Your task to perform on an android device: delete browsing data in the chrome app Image 0: 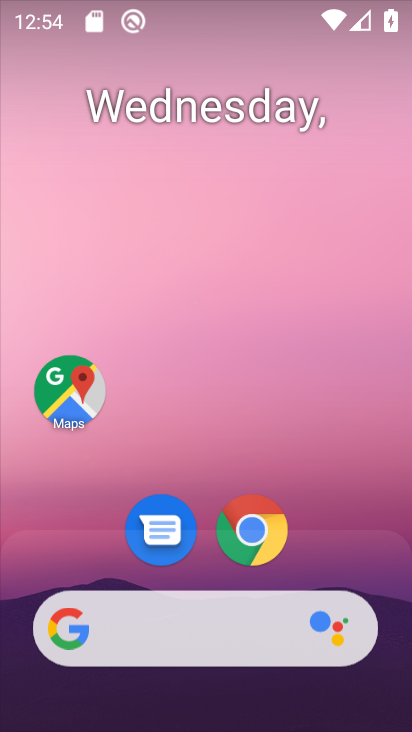
Step 0: click (254, 535)
Your task to perform on an android device: delete browsing data in the chrome app Image 1: 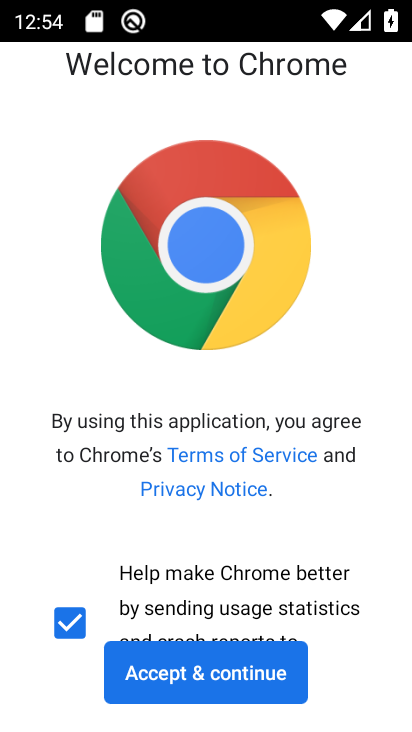
Step 1: click (213, 680)
Your task to perform on an android device: delete browsing data in the chrome app Image 2: 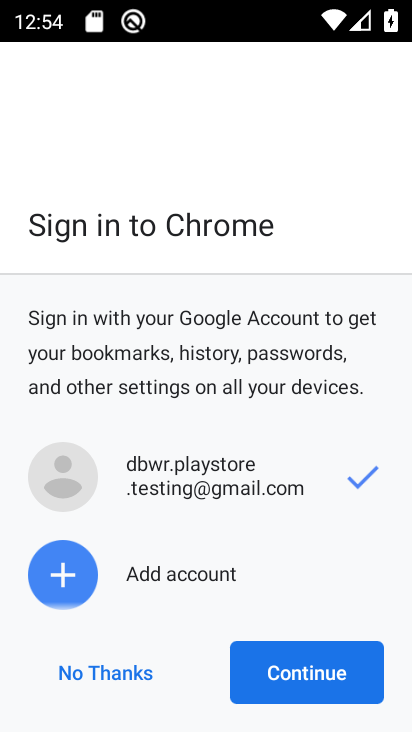
Step 2: click (309, 665)
Your task to perform on an android device: delete browsing data in the chrome app Image 3: 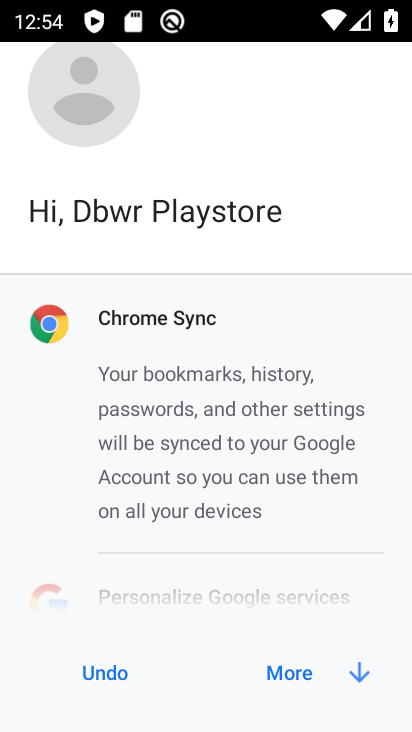
Step 3: click (294, 665)
Your task to perform on an android device: delete browsing data in the chrome app Image 4: 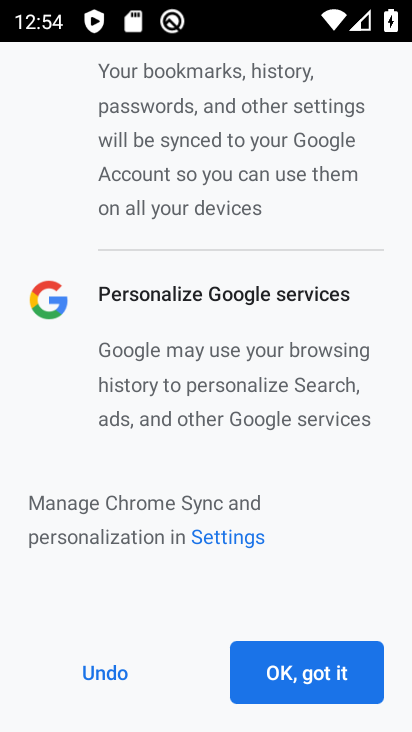
Step 4: click (294, 665)
Your task to perform on an android device: delete browsing data in the chrome app Image 5: 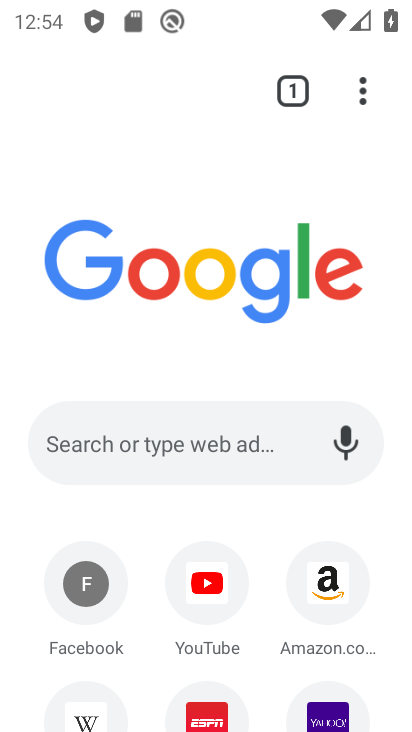
Step 5: click (361, 91)
Your task to perform on an android device: delete browsing data in the chrome app Image 6: 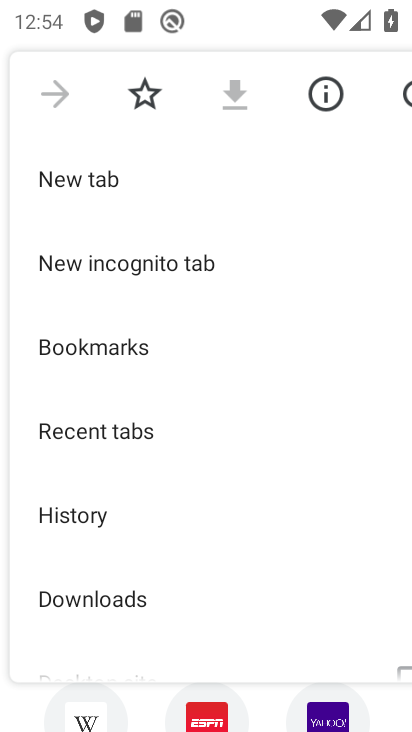
Step 6: drag from (131, 479) to (164, 400)
Your task to perform on an android device: delete browsing data in the chrome app Image 7: 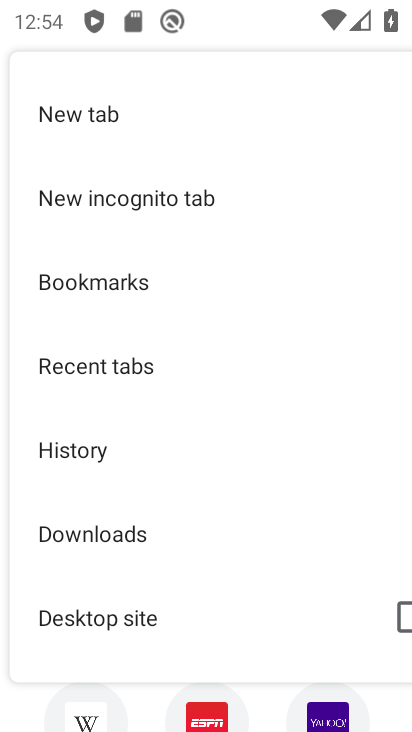
Step 7: drag from (87, 571) to (169, 470)
Your task to perform on an android device: delete browsing data in the chrome app Image 8: 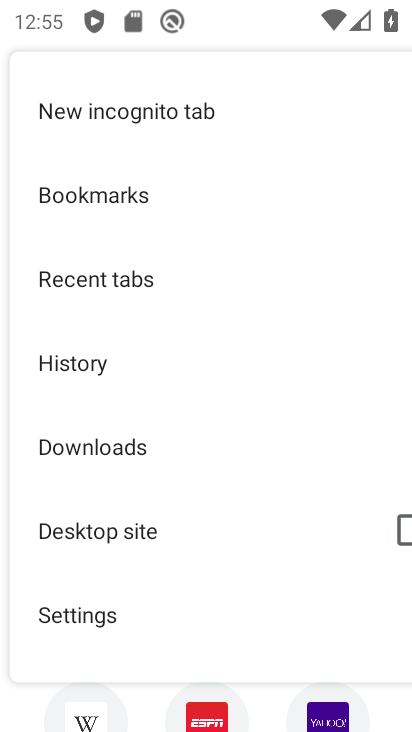
Step 8: drag from (90, 568) to (184, 468)
Your task to perform on an android device: delete browsing data in the chrome app Image 9: 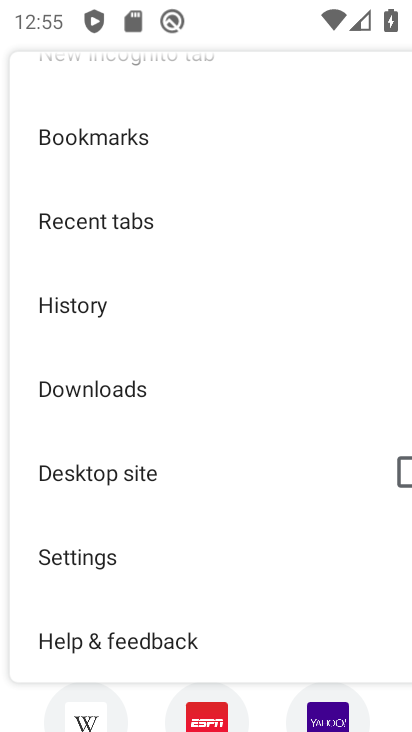
Step 9: click (96, 560)
Your task to perform on an android device: delete browsing data in the chrome app Image 10: 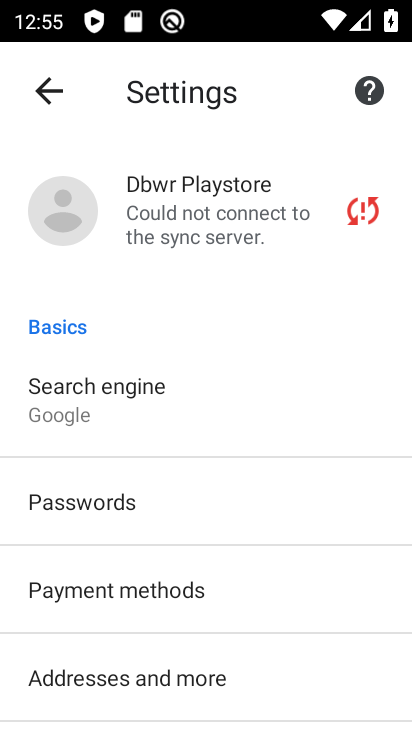
Step 10: drag from (155, 520) to (204, 433)
Your task to perform on an android device: delete browsing data in the chrome app Image 11: 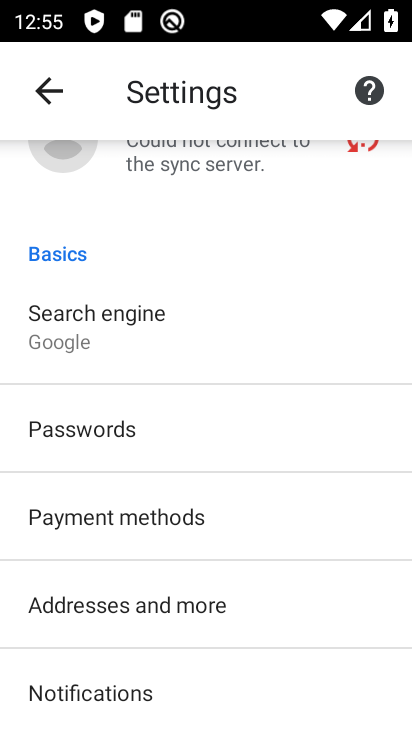
Step 11: drag from (121, 546) to (204, 457)
Your task to perform on an android device: delete browsing data in the chrome app Image 12: 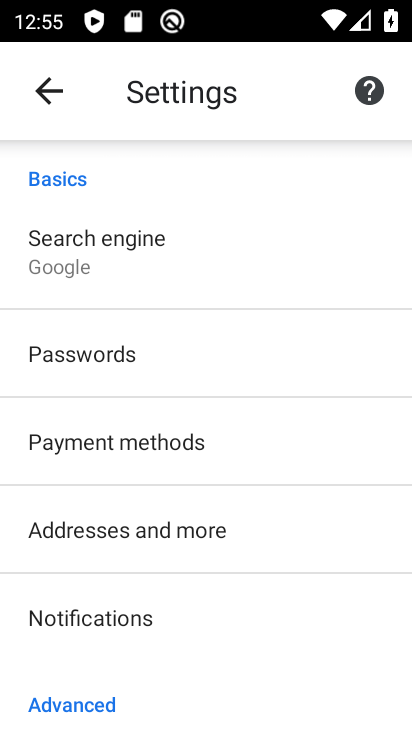
Step 12: drag from (125, 551) to (220, 451)
Your task to perform on an android device: delete browsing data in the chrome app Image 13: 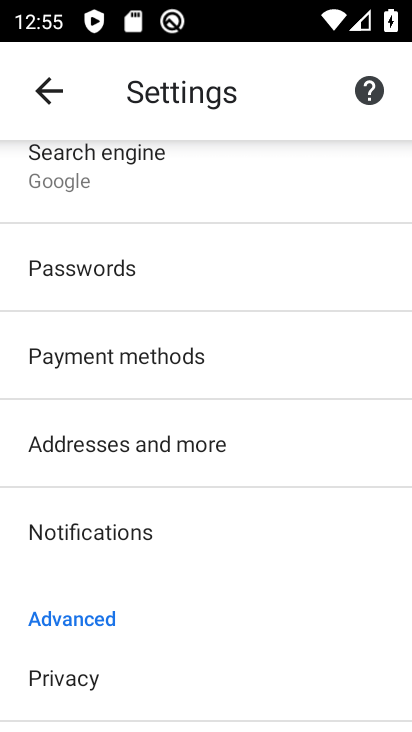
Step 13: drag from (103, 568) to (189, 474)
Your task to perform on an android device: delete browsing data in the chrome app Image 14: 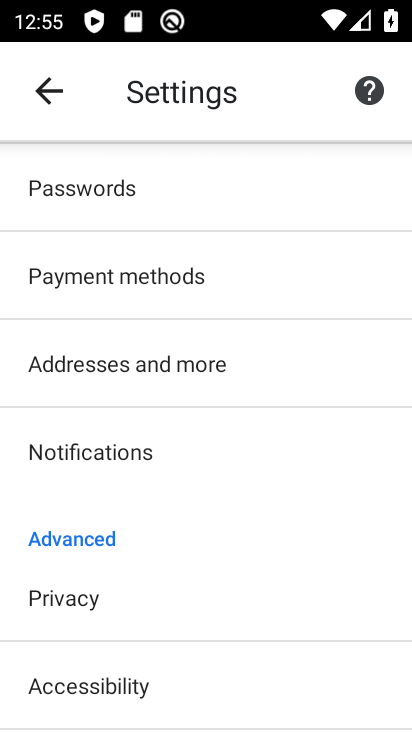
Step 14: drag from (105, 580) to (187, 477)
Your task to perform on an android device: delete browsing data in the chrome app Image 15: 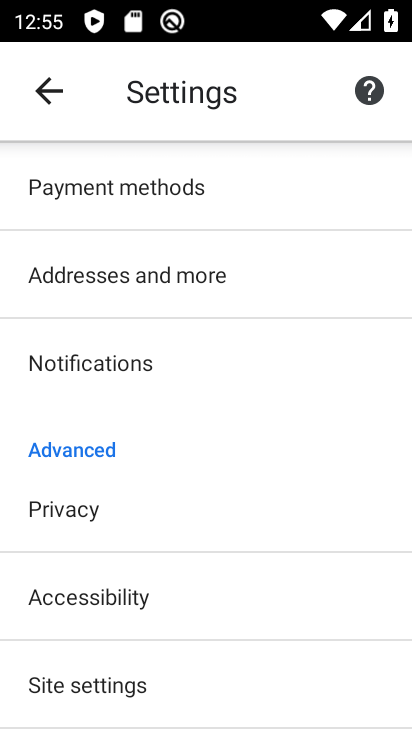
Step 15: click (87, 515)
Your task to perform on an android device: delete browsing data in the chrome app Image 16: 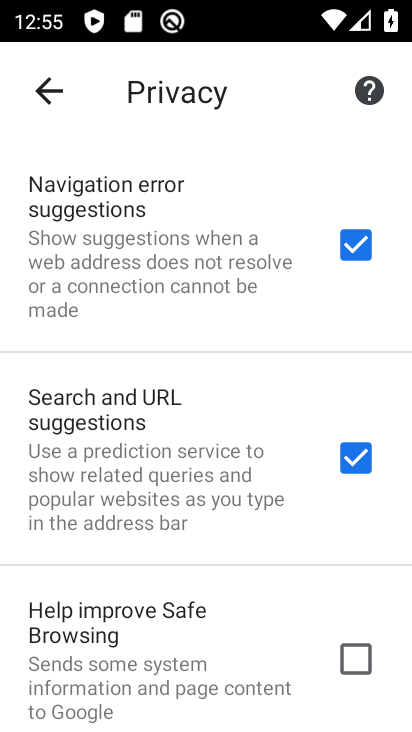
Step 16: drag from (147, 578) to (187, 504)
Your task to perform on an android device: delete browsing data in the chrome app Image 17: 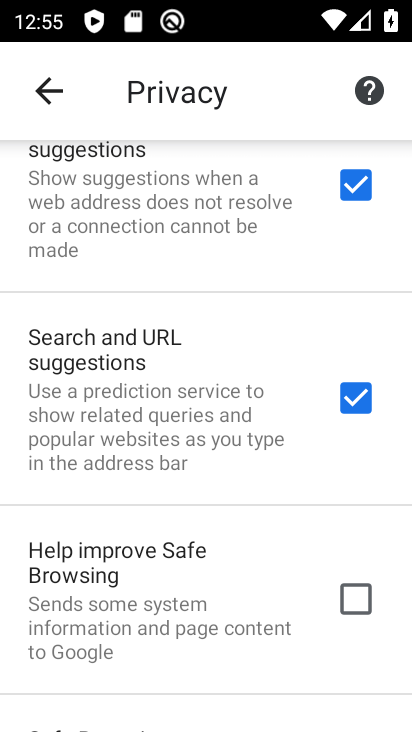
Step 17: drag from (149, 655) to (212, 514)
Your task to perform on an android device: delete browsing data in the chrome app Image 18: 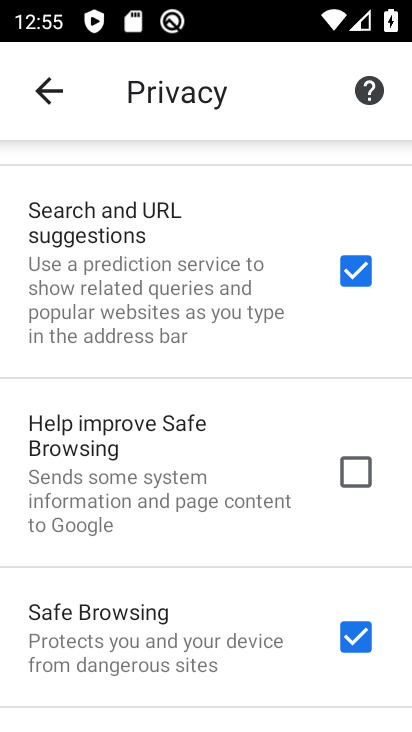
Step 18: drag from (140, 596) to (206, 502)
Your task to perform on an android device: delete browsing data in the chrome app Image 19: 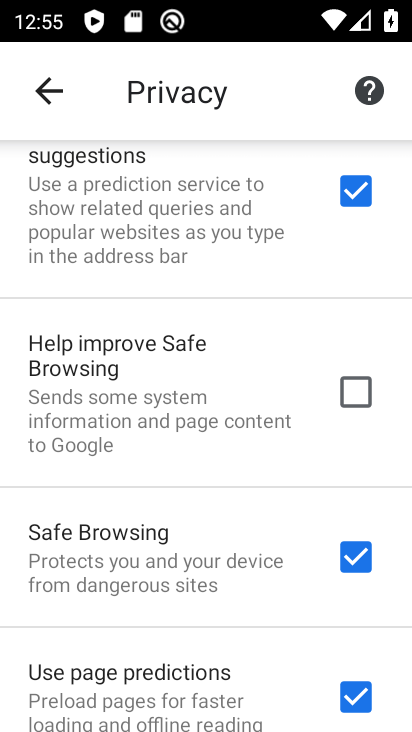
Step 19: drag from (109, 641) to (185, 506)
Your task to perform on an android device: delete browsing data in the chrome app Image 20: 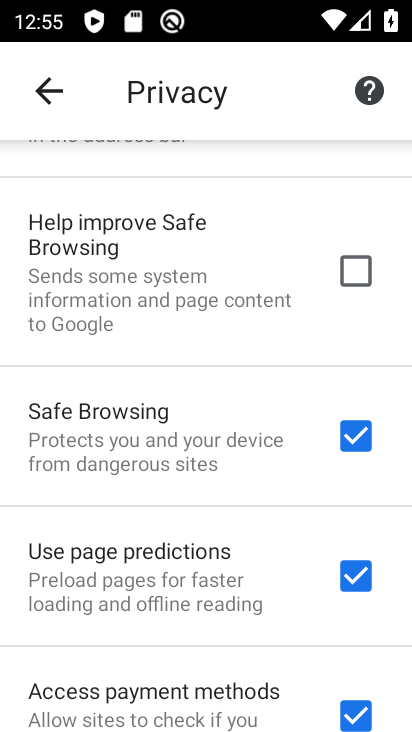
Step 20: drag from (149, 530) to (208, 420)
Your task to perform on an android device: delete browsing data in the chrome app Image 21: 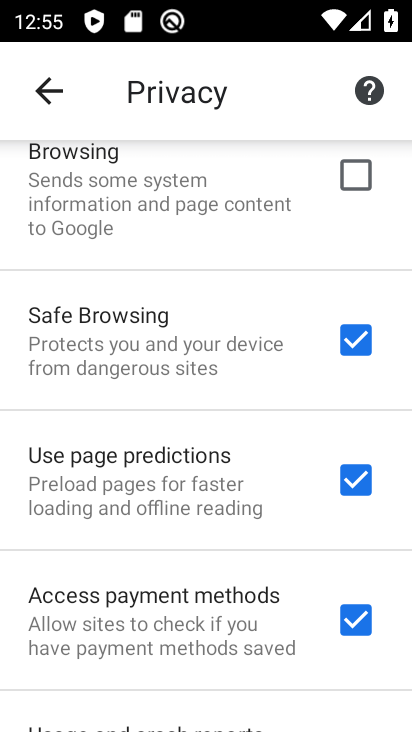
Step 21: drag from (119, 564) to (198, 457)
Your task to perform on an android device: delete browsing data in the chrome app Image 22: 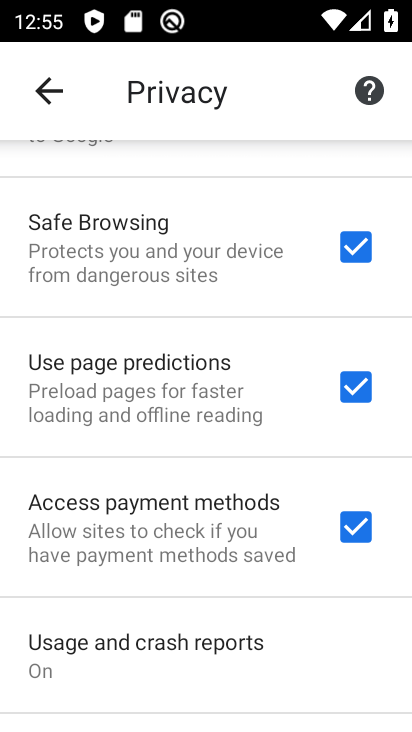
Step 22: drag from (121, 581) to (195, 483)
Your task to perform on an android device: delete browsing data in the chrome app Image 23: 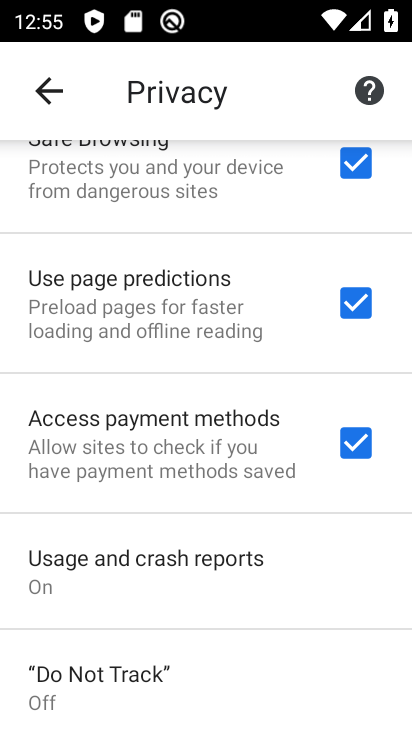
Step 23: drag from (137, 524) to (187, 459)
Your task to perform on an android device: delete browsing data in the chrome app Image 24: 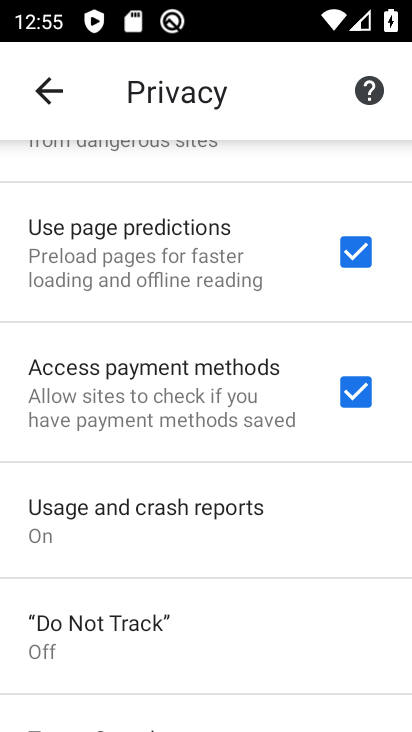
Step 24: drag from (93, 603) to (188, 501)
Your task to perform on an android device: delete browsing data in the chrome app Image 25: 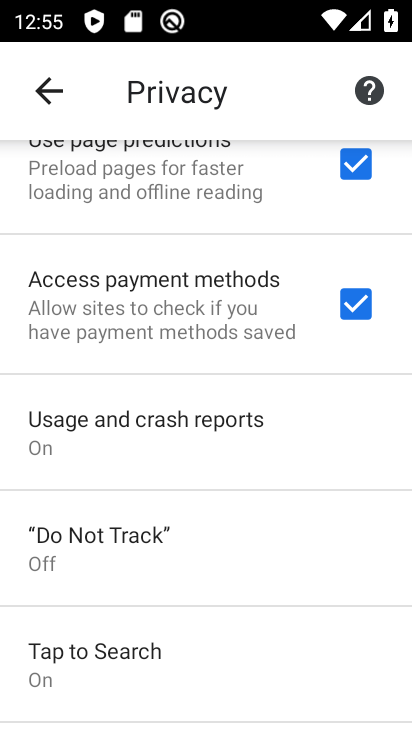
Step 25: drag from (105, 589) to (200, 482)
Your task to perform on an android device: delete browsing data in the chrome app Image 26: 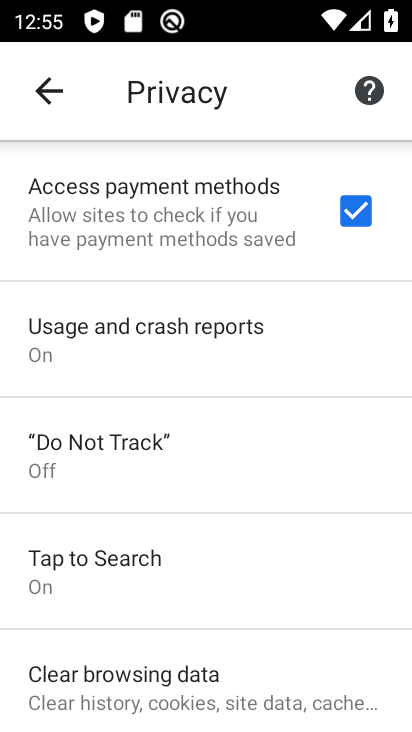
Step 26: drag from (99, 608) to (180, 509)
Your task to perform on an android device: delete browsing data in the chrome app Image 27: 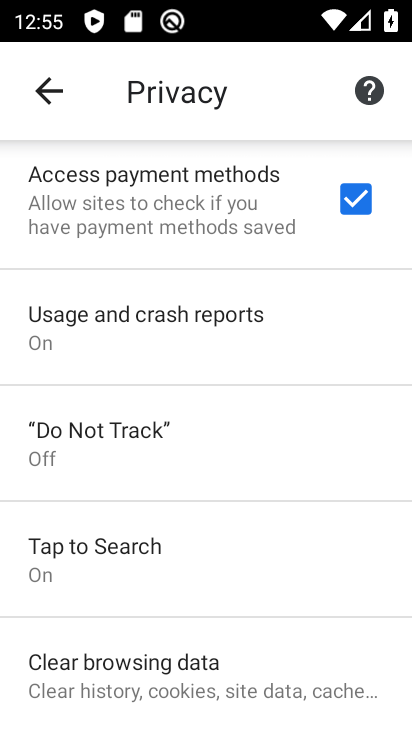
Step 27: click (115, 668)
Your task to perform on an android device: delete browsing data in the chrome app Image 28: 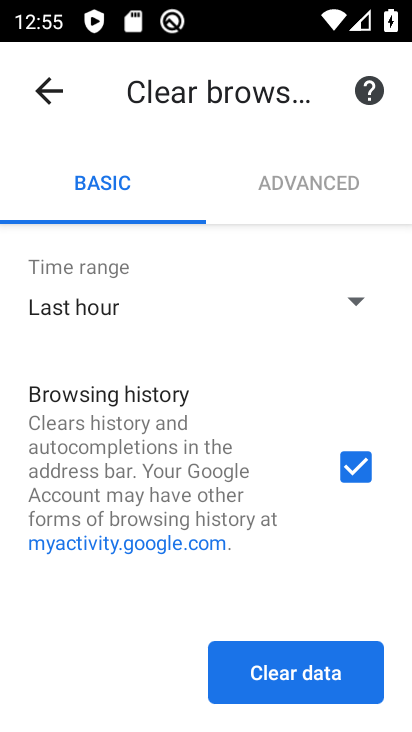
Step 28: click (278, 671)
Your task to perform on an android device: delete browsing data in the chrome app Image 29: 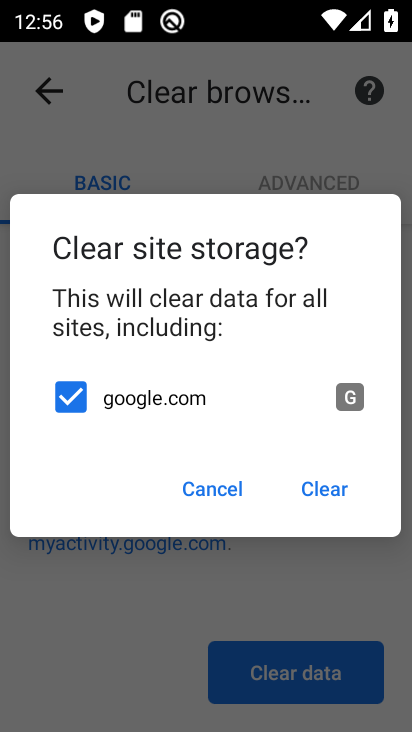
Step 29: click (329, 489)
Your task to perform on an android device: delete browsing data in the chrome app Image 30: 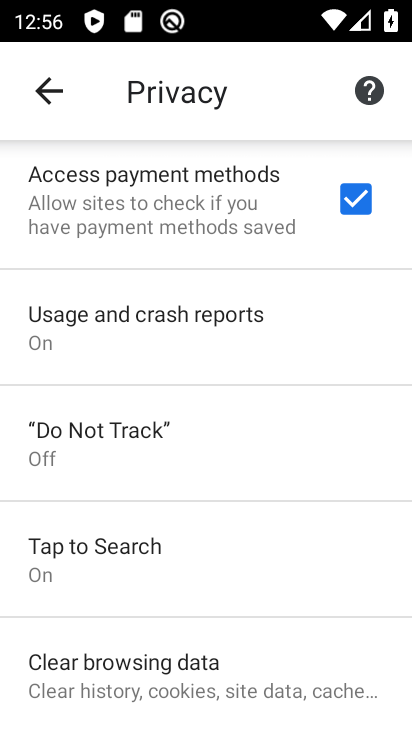
Step 30: task complete